Your task to perform on an android device: change notification settings in the gmail app Image 0: 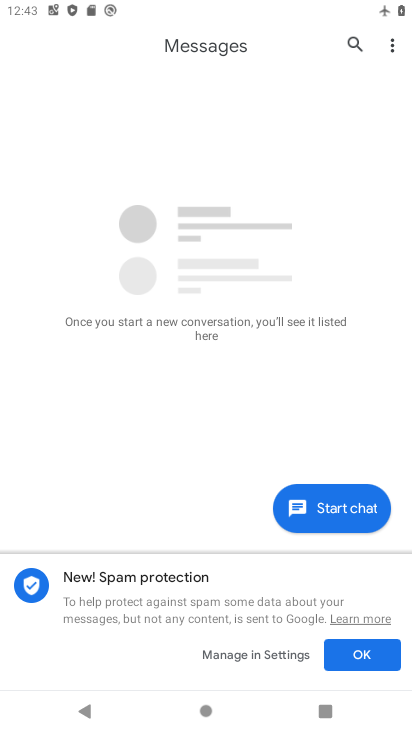
Step 0: press home button
Your task to perform on an android device: change notification settings in the gmail app Image 1: 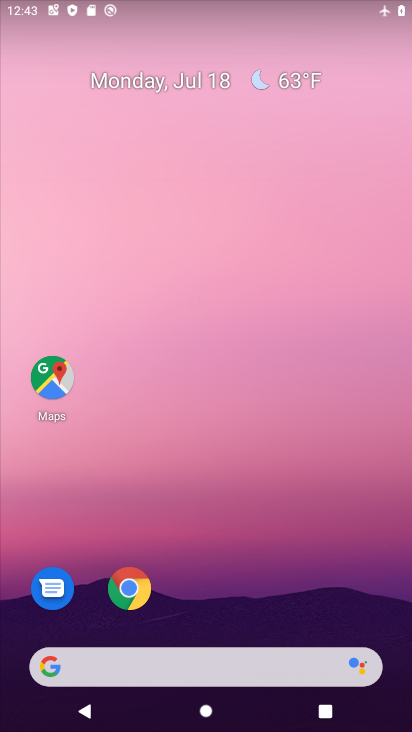
Step 1: drag from (237, 718) to (222, 220)
Your task to perform on an android device: change notification settings in the gmail app Image 2: 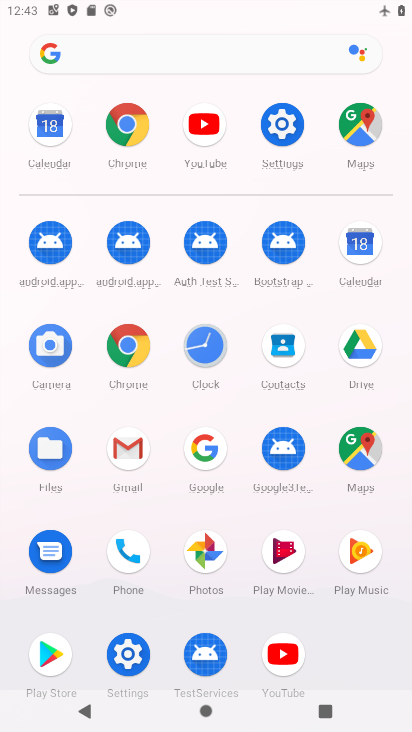
Step 2: click (129, 454)
Your task to perform on an android device: change notification settings in the gmail app Image 3: 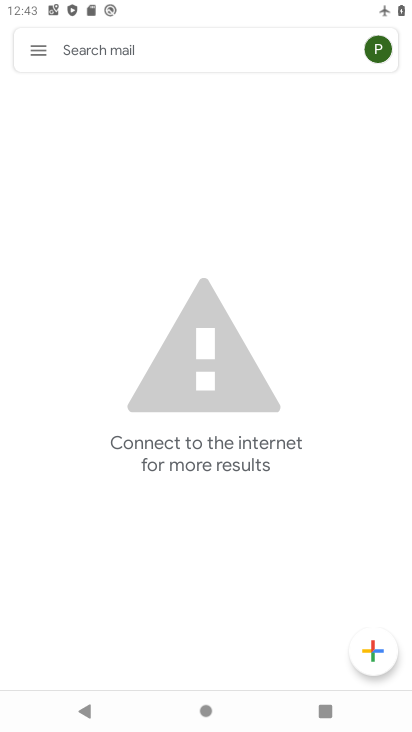
Step 3: click (34, 51)
Your task to perform on an android device: change notification settings in the gmail app Image 4: 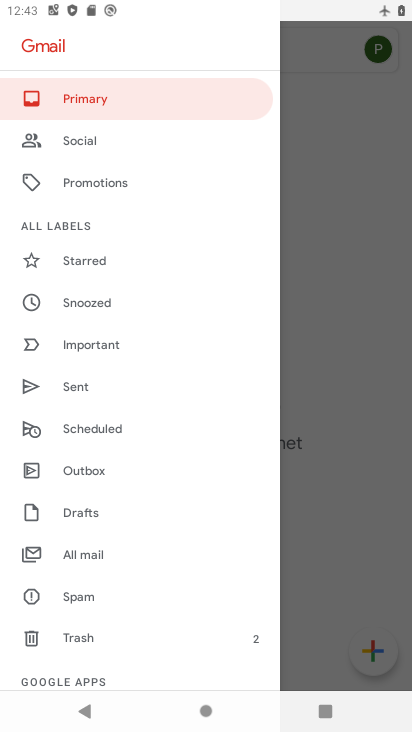
Step 4: drag from (75, 644) to (94, 373)
Your task to perform on an android device: change notification settings in the gmail app Image 5: 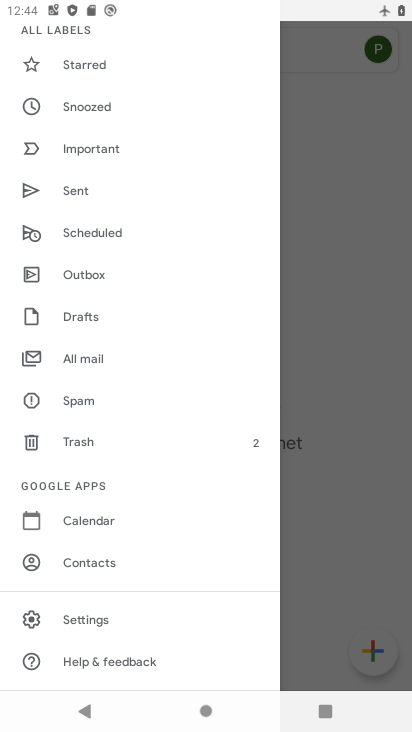
Step 5: click (100, 622)
Your task to perform on an android device: change notification settings in the gmail app Image 6: 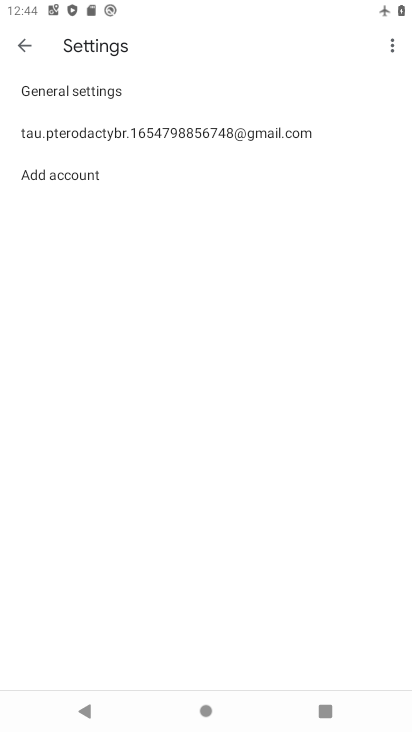
Step 6: click (97, 135)
Your task to perform on an android device: change notification settings in the gmail app Image 7: 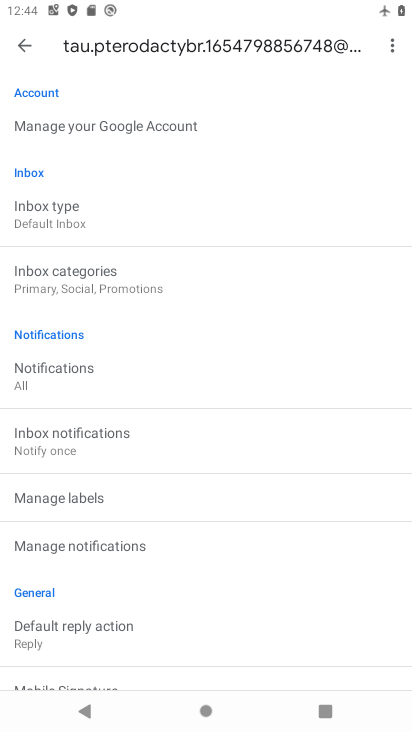
Step 7: click (60, 366)
Your task to perform on an android device: change notification settings in the gmail app Image 8: 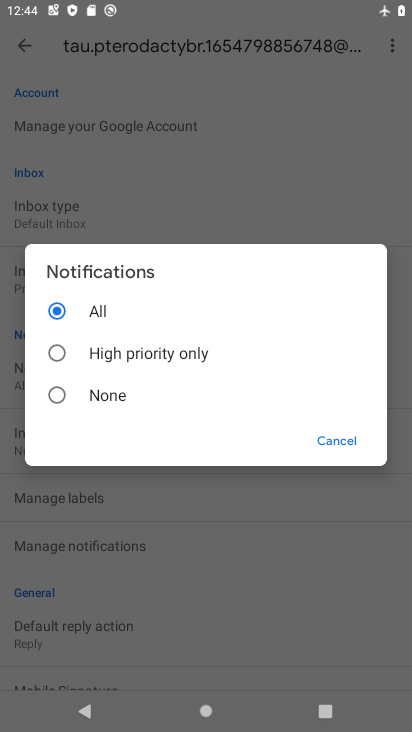
Step 8: click (53, 396)
Your task to perform on an android device: change notification settings in the gmail app Image 9: 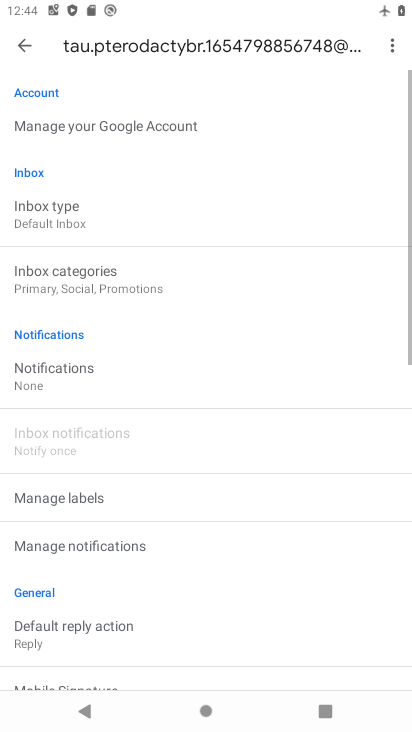
Step 9: task complete